Your task to perform on an android device: open app "Upside-Cash back on gas & food" Image 0: 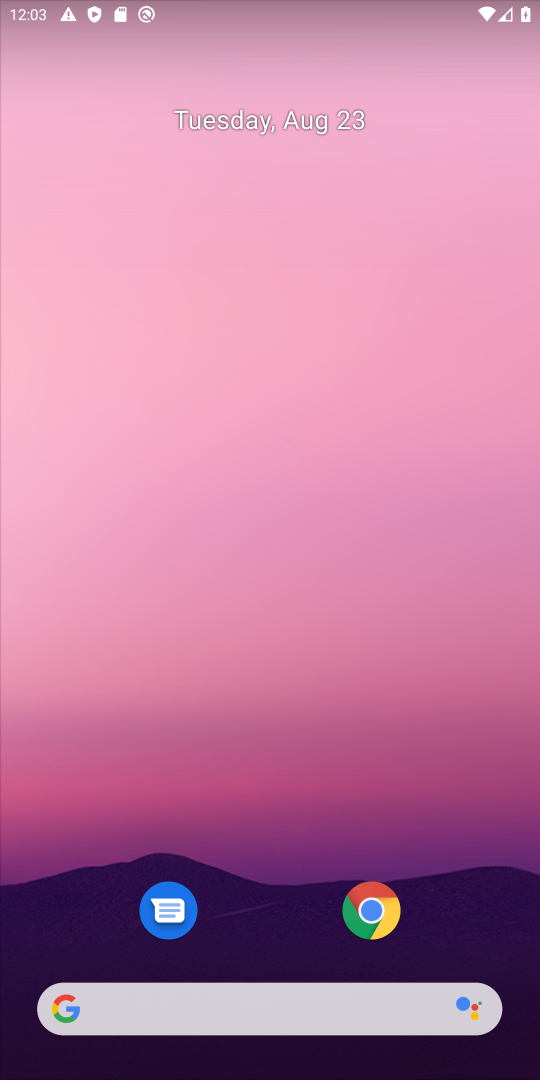
Step 0: drag from (217, 784) to (252, 72)
Your task to perform on an android device: open app "Upside-Cash back on gas & food" Image 1: 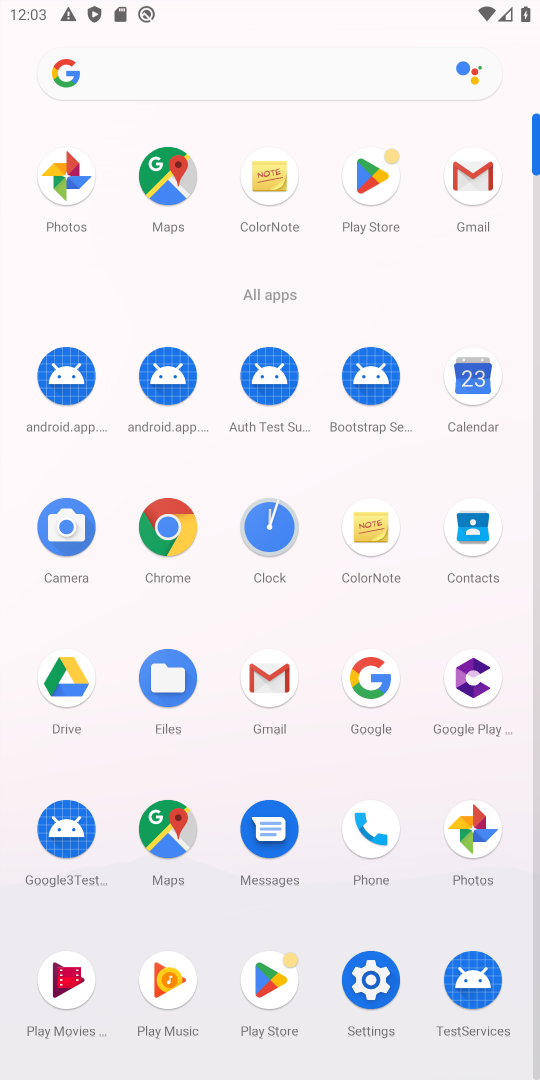
Step 1: click (360, 180)
Your task to perform on an android device: open app "Upside-Cash back on gas & food" Image 2: 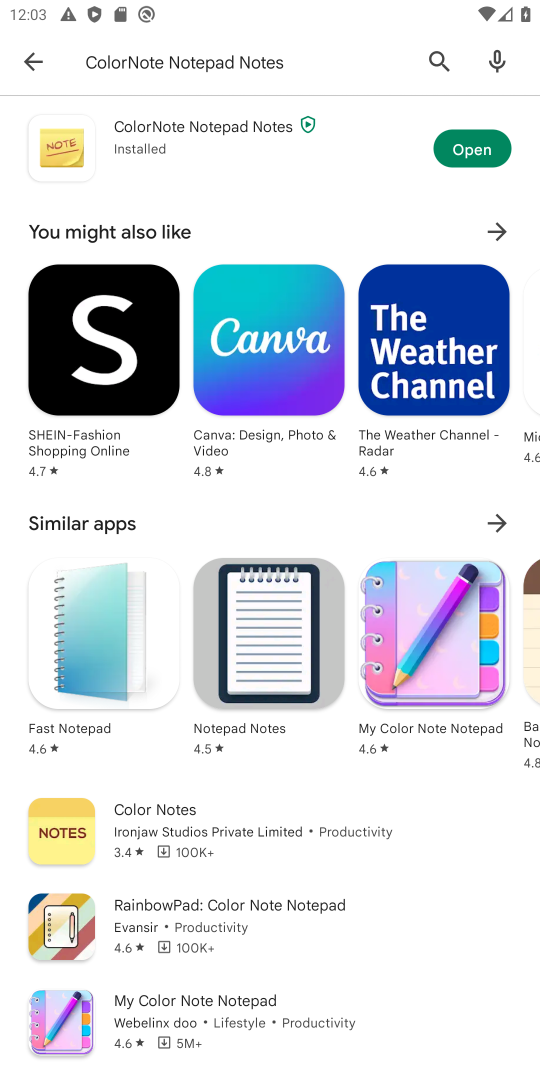
Step 2: press back button
Your task to perform on an android device: open app "Upside-Cash back on gas & food" Image 3: 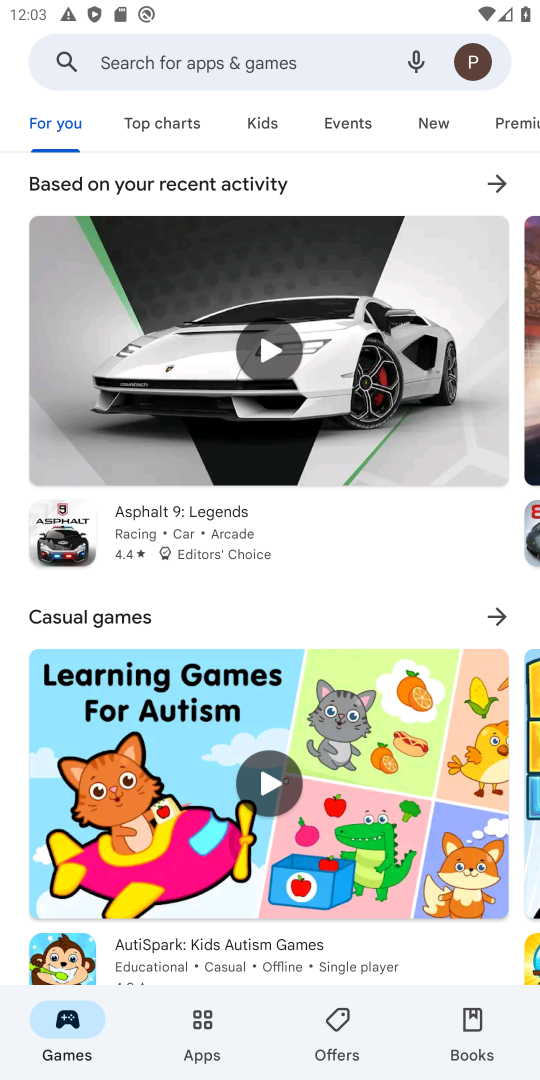
Step 3: click (148, 53)
Your task to perform on an android device: open app "Upside-Cash back on gas & food" Image 4: 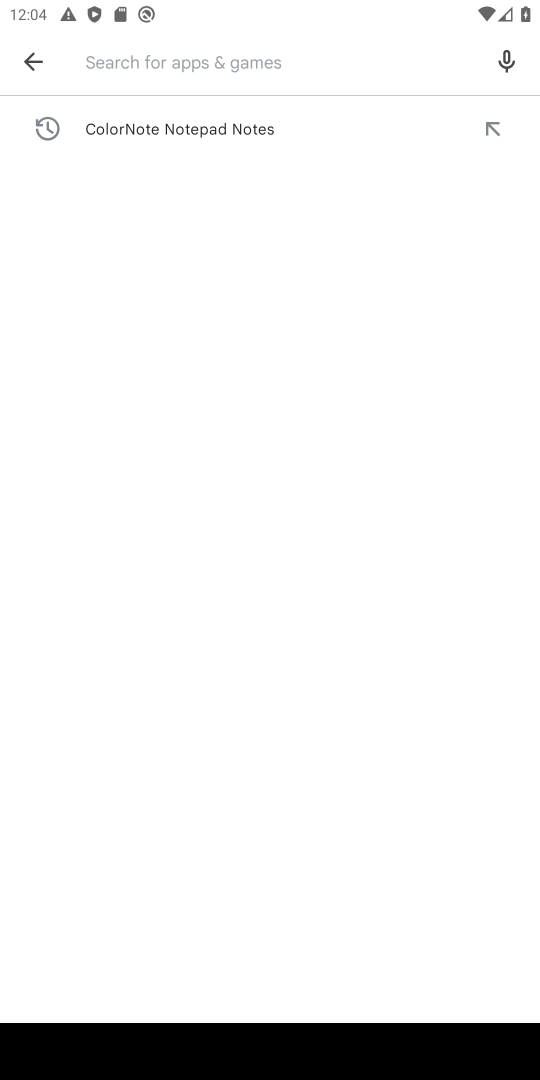
Step 4: type "Upside-Cash back on gas & food"
Your task to perform on an android device: open app "Upside-Cash back on gas & food" Image 5: 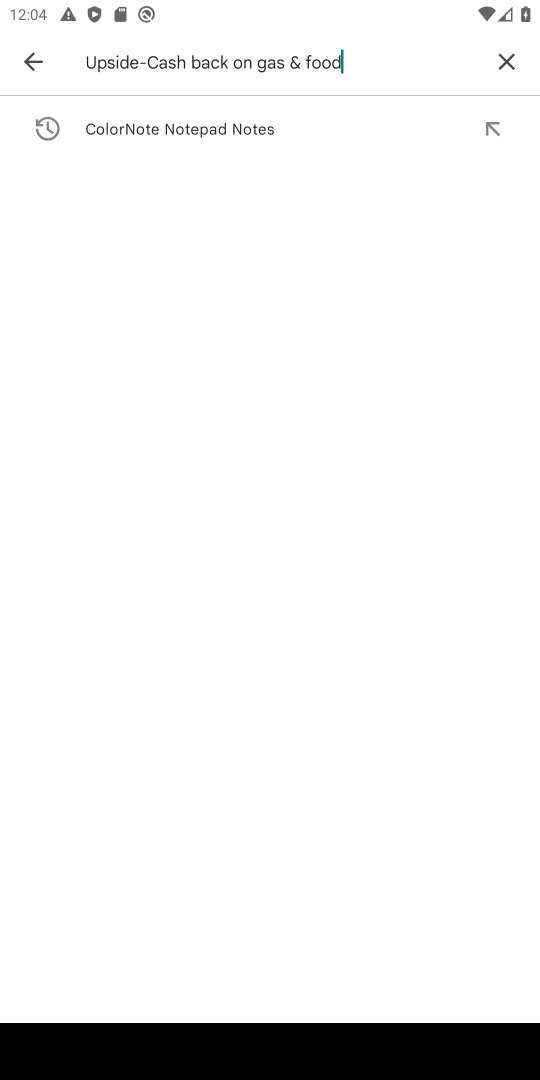
Step 5: press enter
Your task to perform on an android device: open app "Upside-Cash back on gas & food" Image 6: 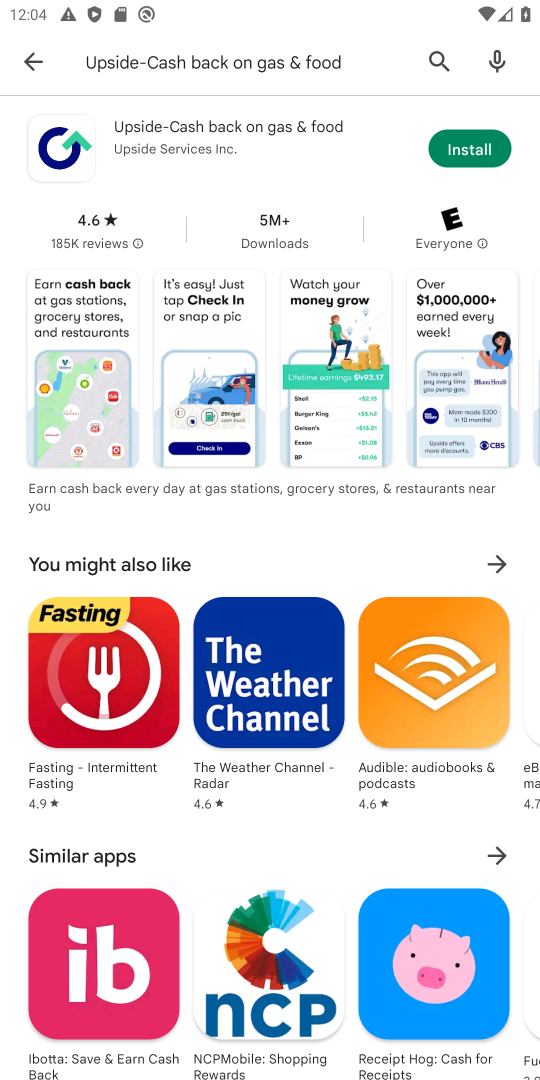
Step 6: task complete